Your task to perform on an android device: What's on my calendar tomorrow? Image 0: 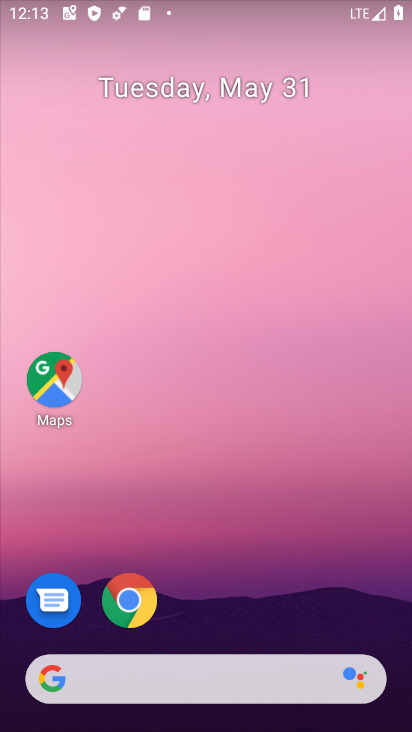
Step 0: drag from (201, 730) to (187, 62)
Your task to perform on an android device: What's on my calendar tomorrow? Image 1: 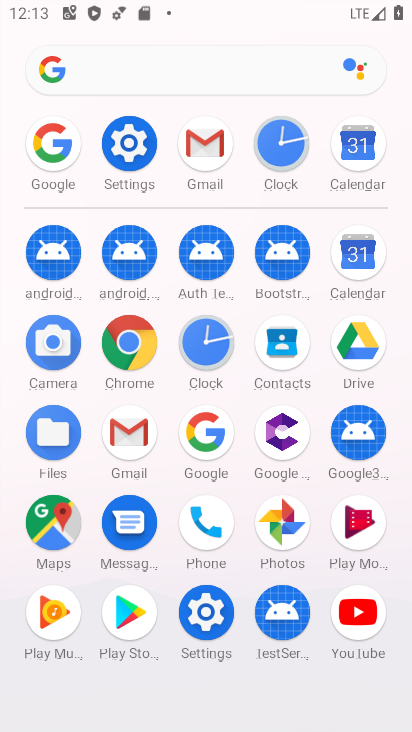
Step 1: click (358, 247)
Your task to perform on an android device: What's on my calendar tomorrow? Image 2: 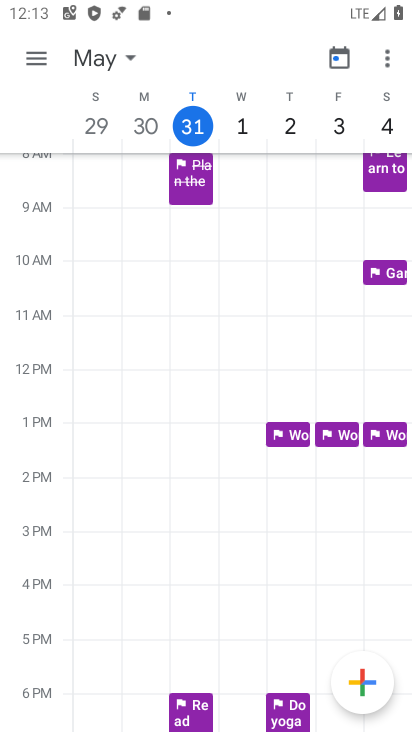
Step 2: click (132, 57)
Your task to perform on an android device: What's on my calendar tomorrow? Image 3: 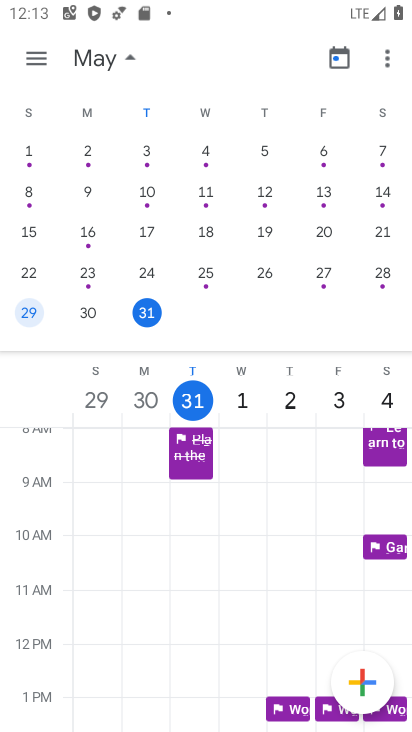
Step 3: drag from (30, 217) to (362, 189)
Your task to perform on an android device: What's on my calendar tomorrow? Image 4: 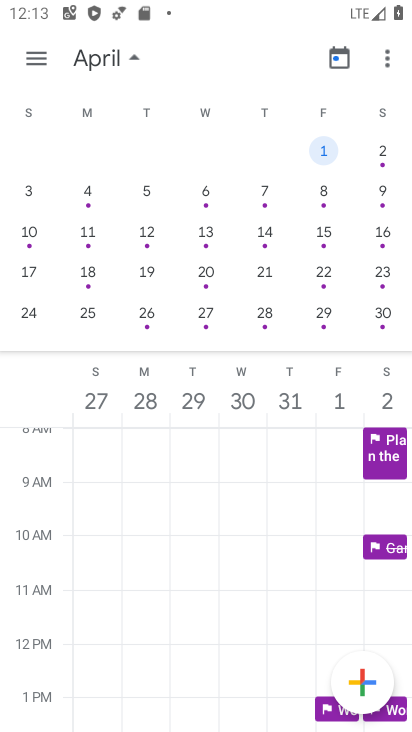
Step 4: click (324, 151)
Your task to perform on an android device: What's on my calendar tomorrow? Image 5: 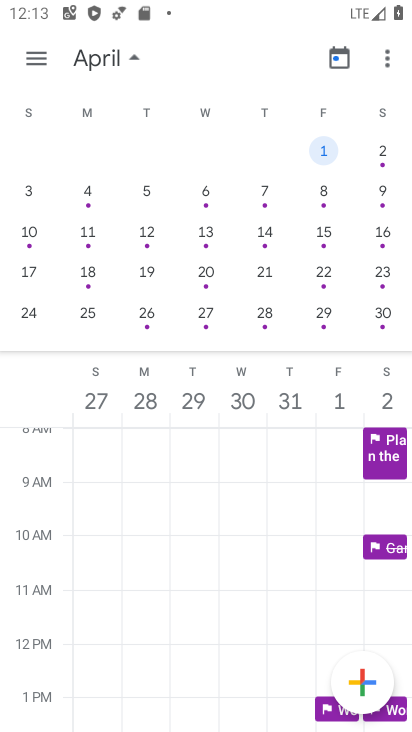
Step 5: click (131, 55)
Your task to perform on an android device: What's on my calendar tomorrow? Image 6: 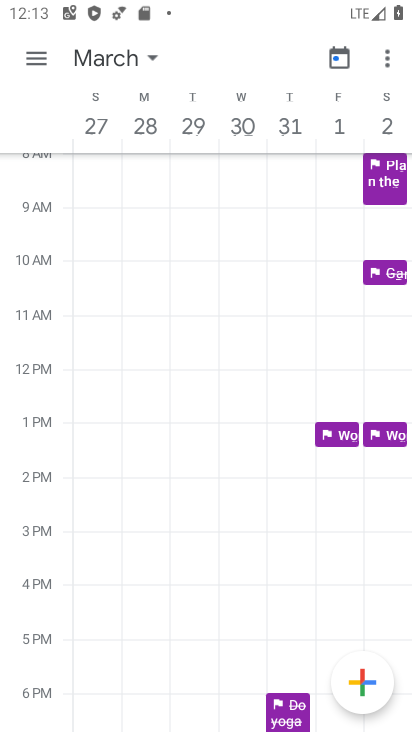
Step 6: task complete